Your task to perform on an android device: Go to display settings Image 0: 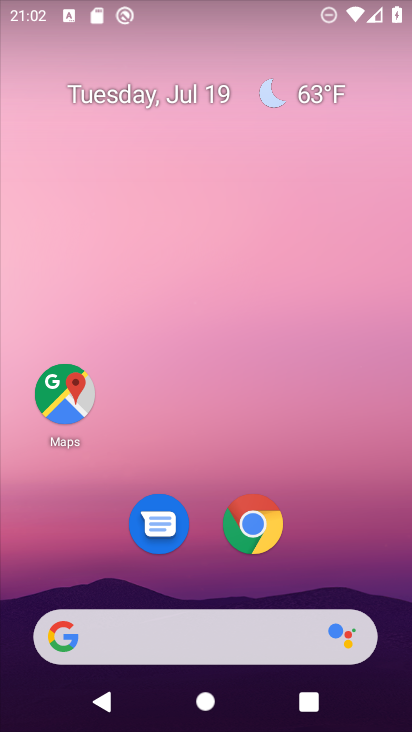
Step 0: drag from (261, 429) to (260, 46)
Your task to perform on an android device: Go to display settings Image 1: 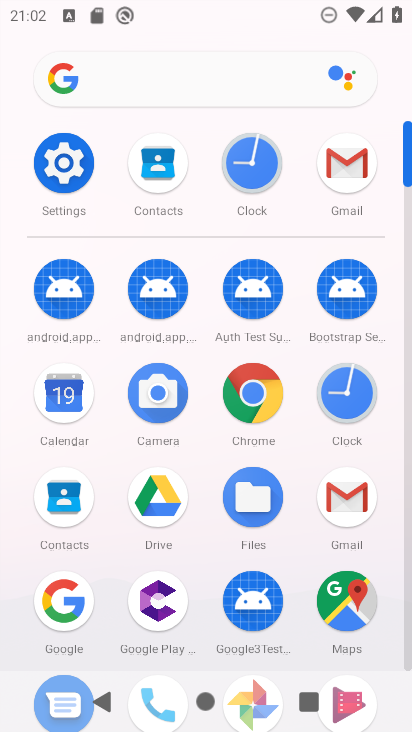
Step 1: click (78, 162)
Your task to perform on an android device: Go to display settings Image 2: 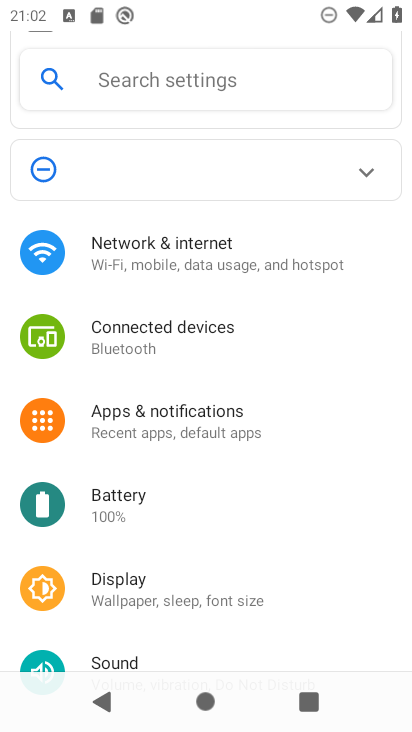
Step 2: click (103, 588)
Your task to perform on an android device: Go to display settings Image 3: 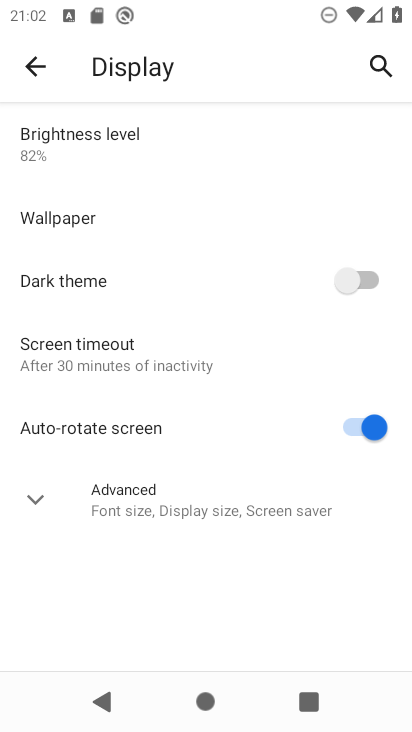
Step 3: click (37, 503)
Your task to perform on an android device: Go to display settings Image 4: 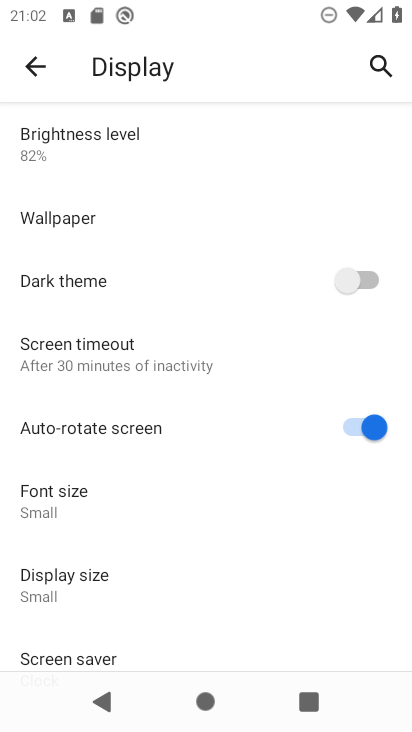
Step 4: task complete